Your task to perform on an android device: Turn on the flashlight Image 0: 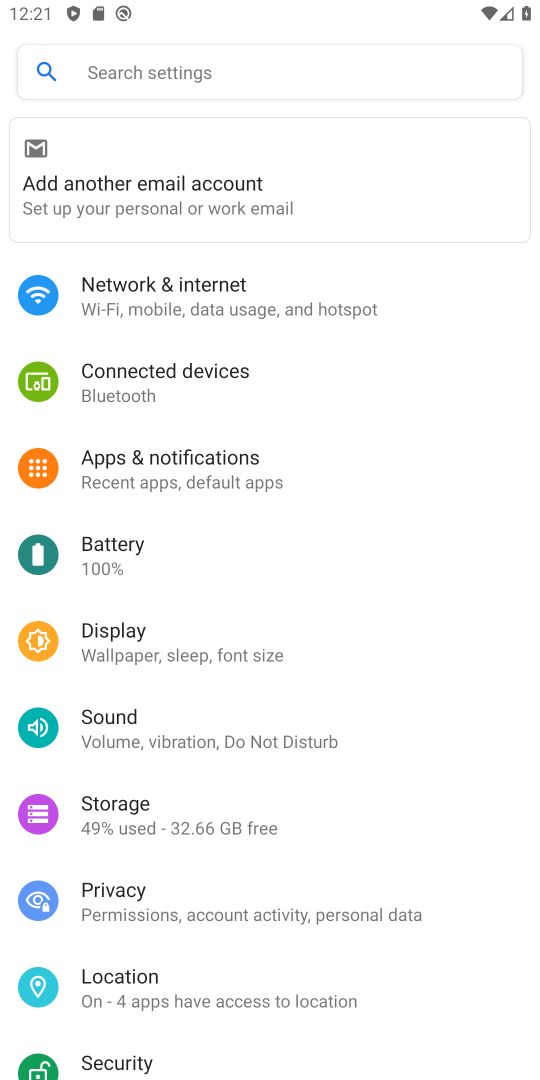
Step 0: task impossible